Your task to perform on an android device: change the clock display to digital Image 0: 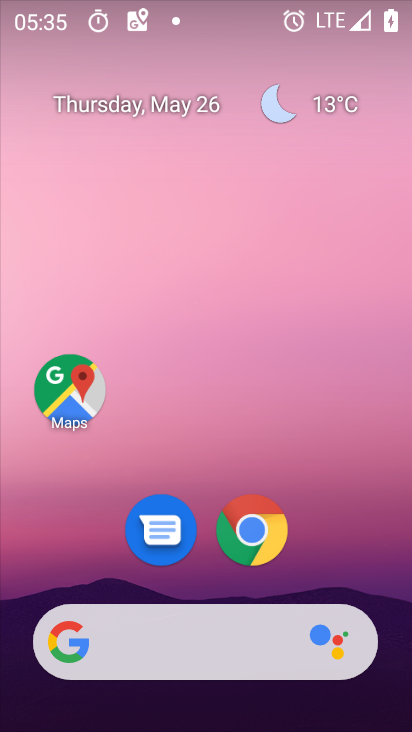
Step 0: drag from (269, 625) to (326, 11)
Your task to perform on an android device: change the clock display to digital Image 1: 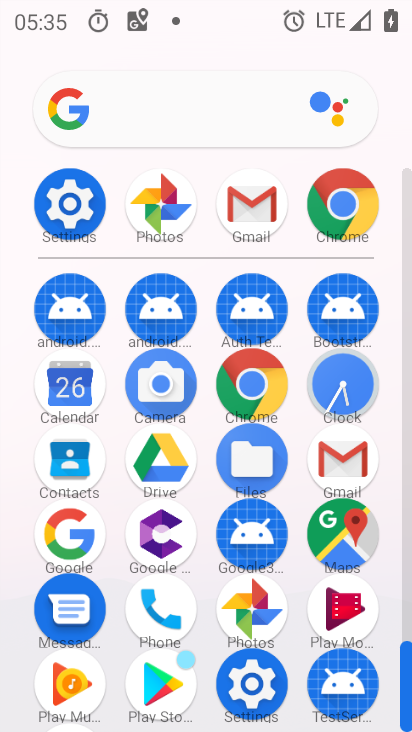
Step 1: click (340, 383)
Your task to perform on an android device: change the clock display to digital Image 2: 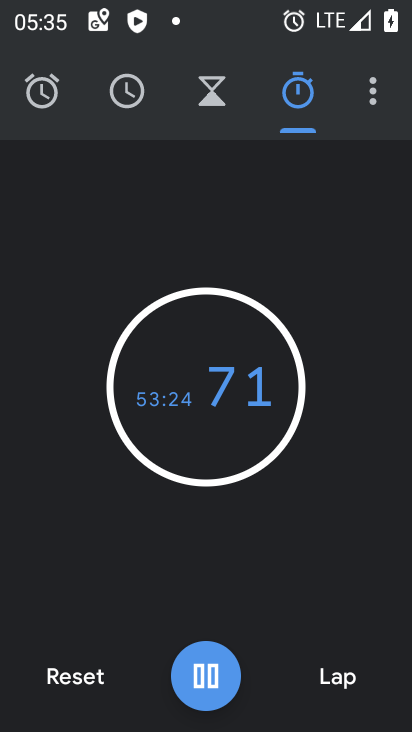
Step 2: click (365, 86)
Your task to perform on an android device: change the clock display to digital Image 3: 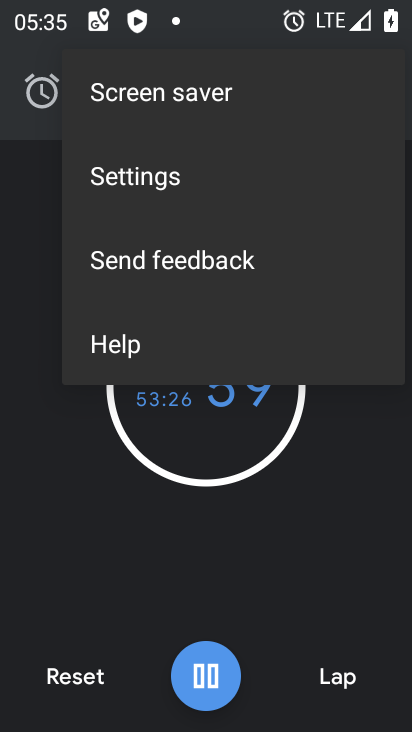
Step 3: click (257, 179)
Your task to perform on an android device: change the clock display to digital Image 4: 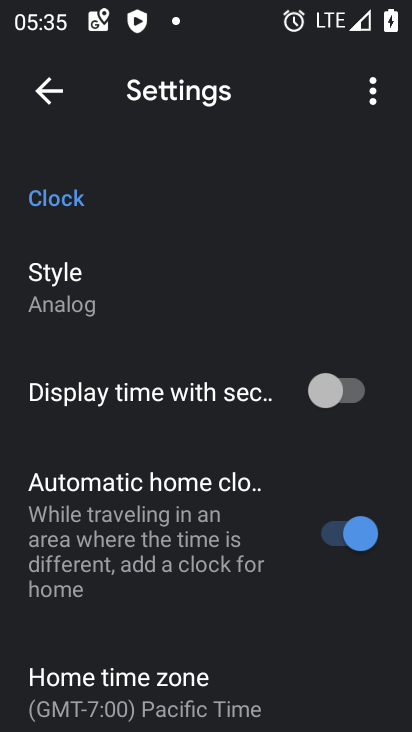
Step 4: click (132, 297)
Your task to perform on an android device: change the clock display to digital Image 5: 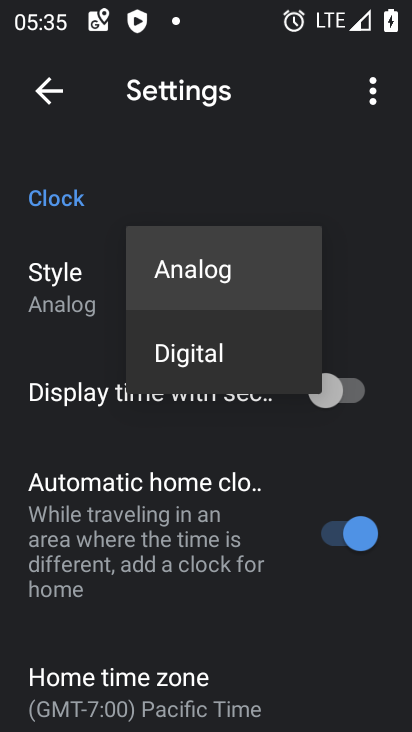
Step 5: click (164, 357)
Your task to perform on an android device: change the clock display to digital Image 6: 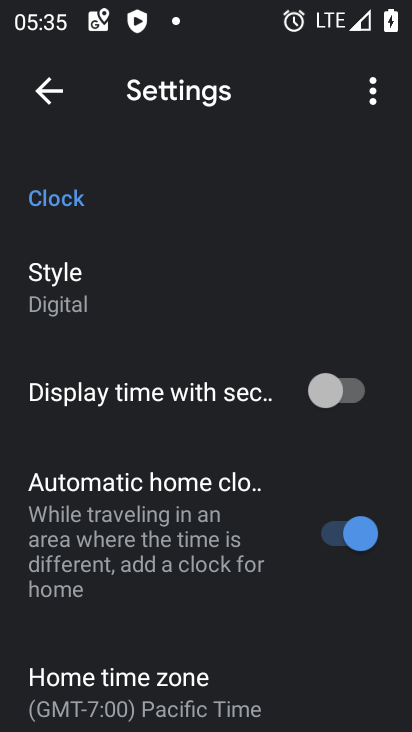
Step 6: task complete